Your task to perform on an android device: Go to internet settings Image 0: 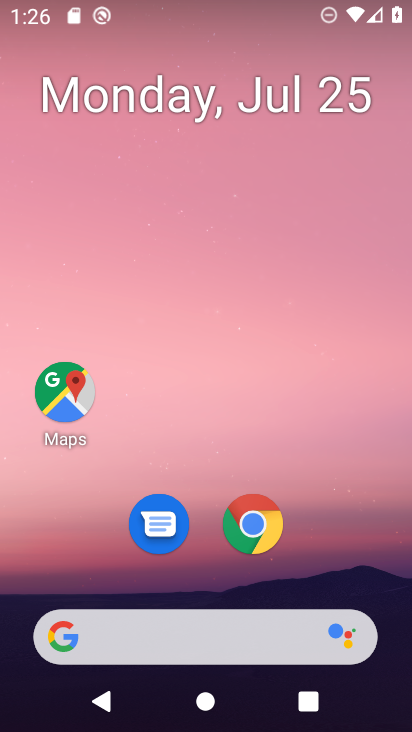
Step 0: press home button
Your task to perform on an android device: Go to internet settings Image 1: 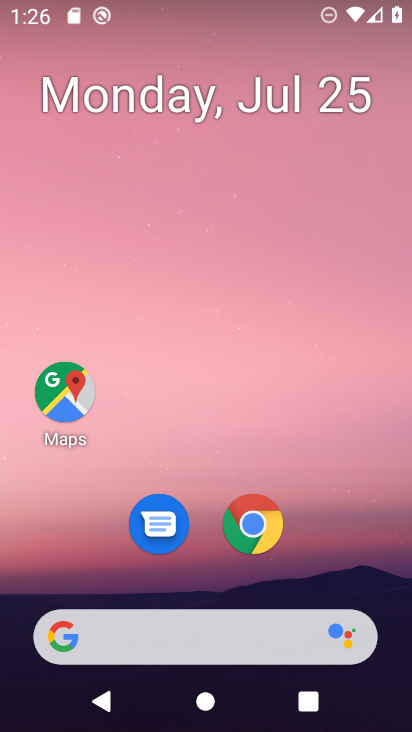
Step 1: drag from (240, 637) to (379, 69)
Your task to perform on an android device: Go to internet settings Image 2: 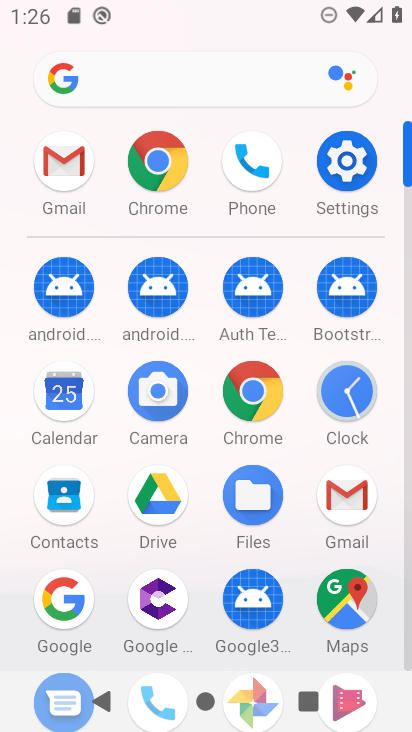
Step 2: click (353, 155)
Your task to perform on an android device: Go to internet settings Image 3: 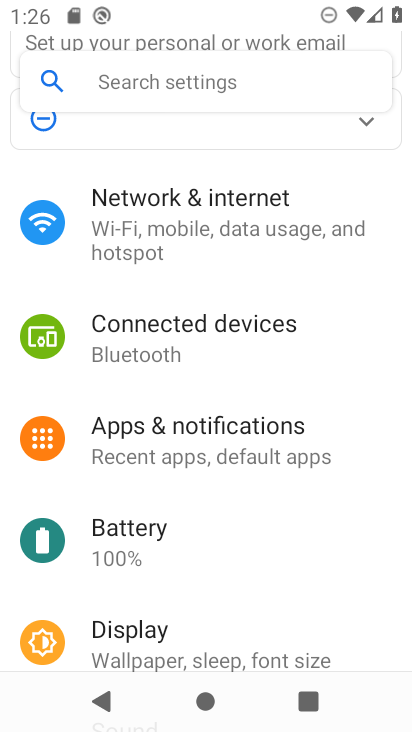
Step 3: click (225, 196)
Your task to perform on an android device: Go to internet settings Image 4: 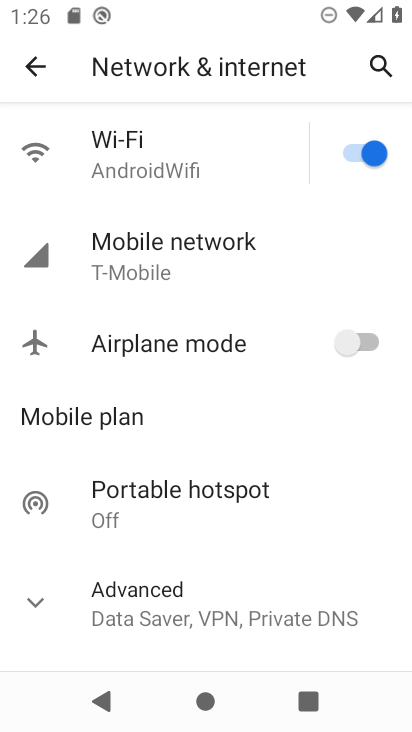
Step 4: task complete